Your task to perform on an android device: see tabs open on other devices in the chrome app Image 0: 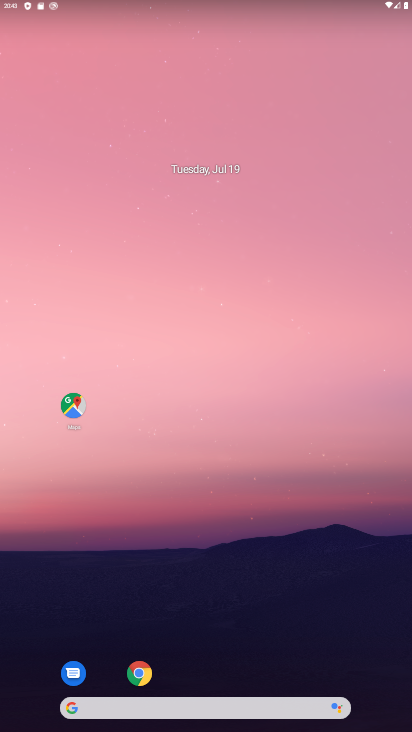
Step 0: click (138, 667)
Your task to perform on an android device: see tabs open on other devices in the chrome app Image 1: 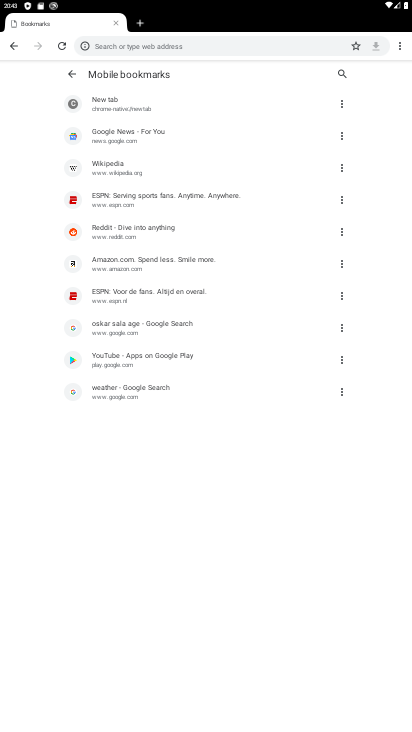
Step 1: click (401, 47)
Your task to perform on an android device: see tabs open on other devices in the chrome app Image 2: 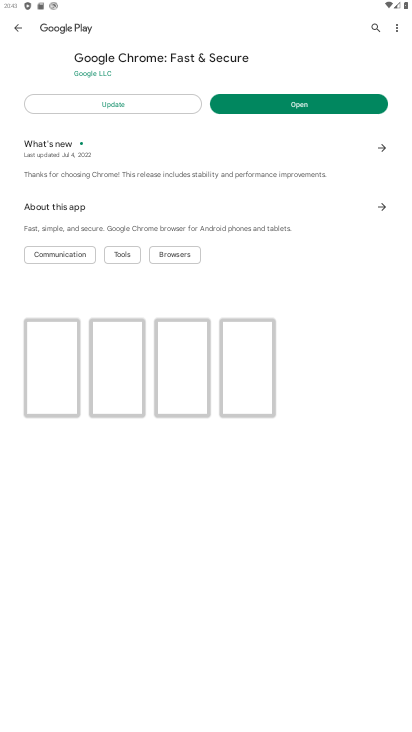
Step 2: press back button
Your task to perform on an android device: see tabs open on other devices in the chrome app Image 3: 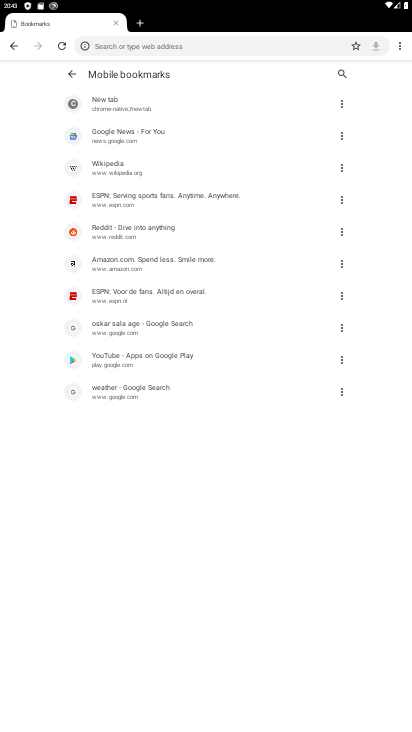
Step 3: click (394, 40)
Your task to perform on an android device: see tabs open on other devices in the chrome app Image 4: 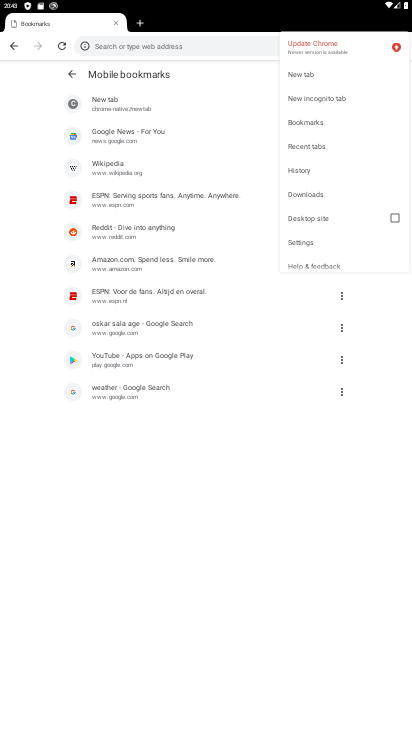
Step 4: click (321, 146)
Your task to perform on an android device: see tabs open on other devices in the chrome app Image 5: 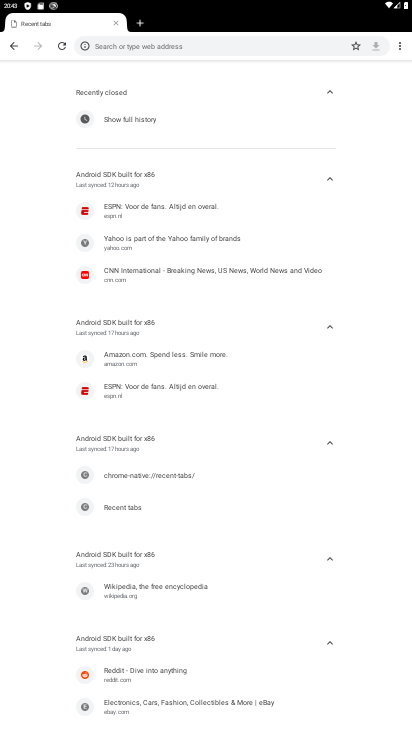
Step 5: task complete